Your task to perform on an android device: Open sound settings Image 0: 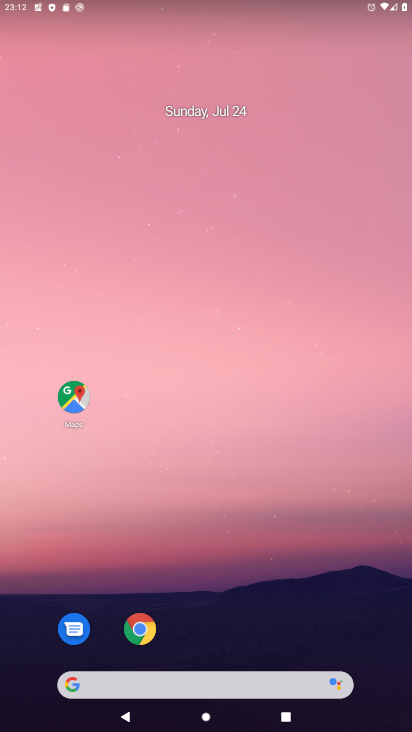
Step 0: drag from (186, 645) to (200, 135)
Your task to perform on an android device: Open sound settings Image 1: 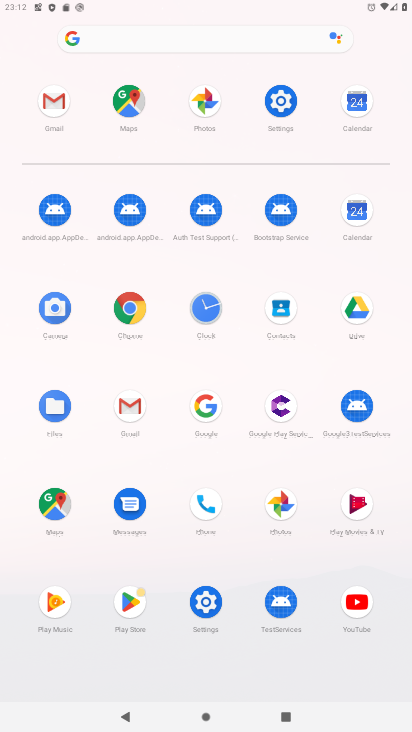
Step 1: click (185, 590)
Your task to perform on an android device: Open sound settings Image 2: 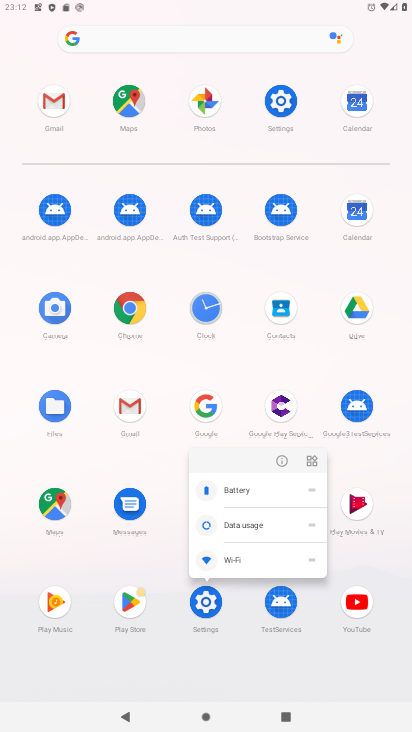
Step 2: click (285, 455)
Your task to perform on an android device: Open sound settings Image 3: 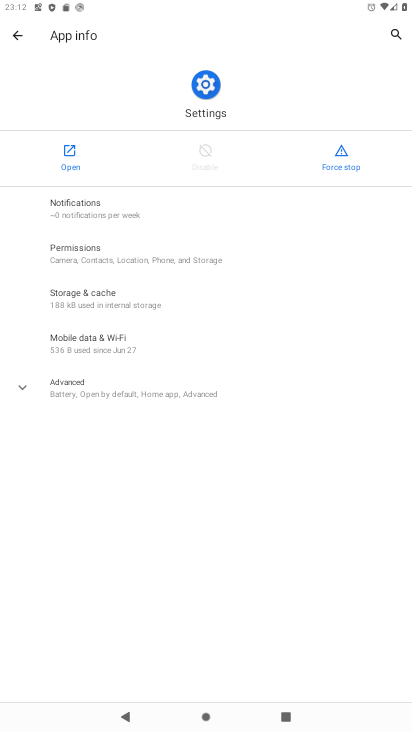
Step 3: click (66, 148)
Your task to perform on an android device: Open sound settings Image 4: 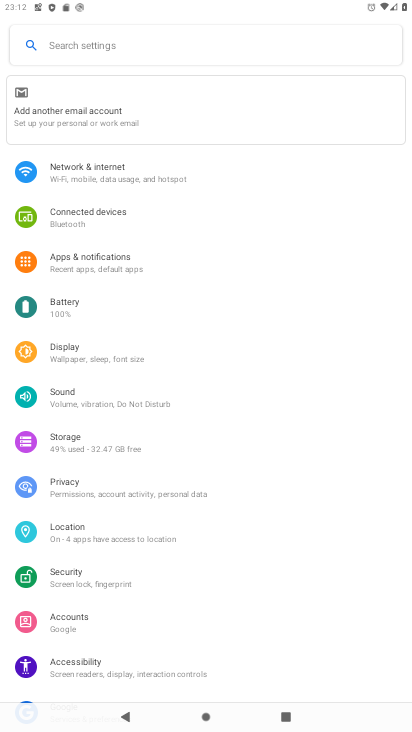
Step 4: click (73, 399)
Your task to perform on an android device: Open sound settings Image 5: 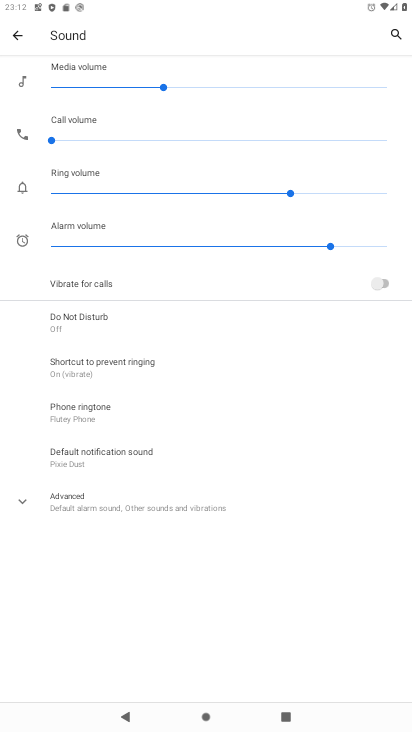
Step 5: task complete